Your task to perform on an android device: toggle location history Image 0: 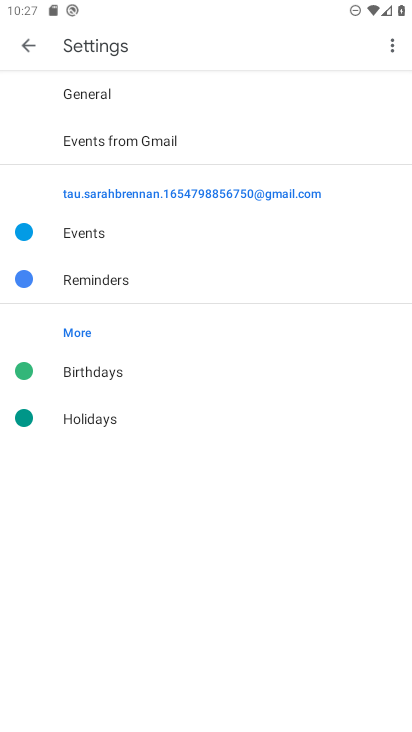
Step 0: press home button
Your task to perform on an android device: toggle location history Image 1: 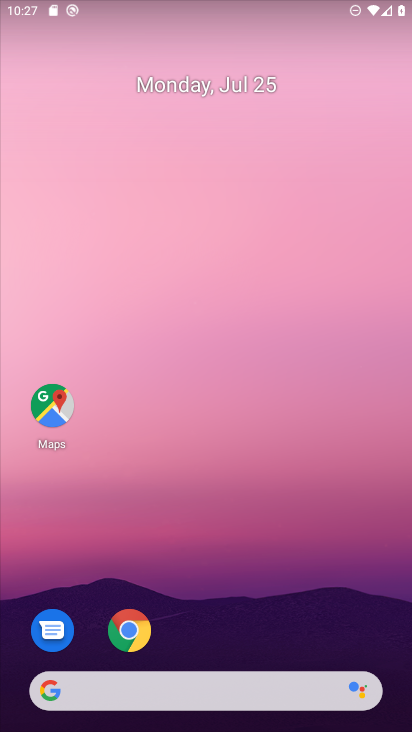
Step 1: drag from (322, 612) to (266, 34)
Your task to perform on an android device: toggle location history Image 2: 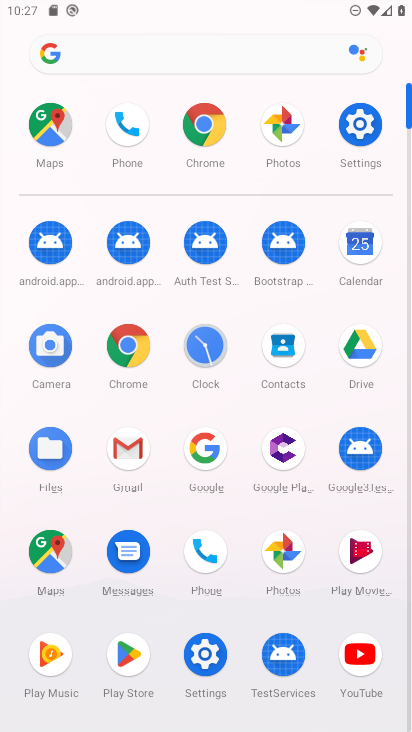
Step 2: click (357, 130)
Your task to perform on an android device: toggle location history Image 3: 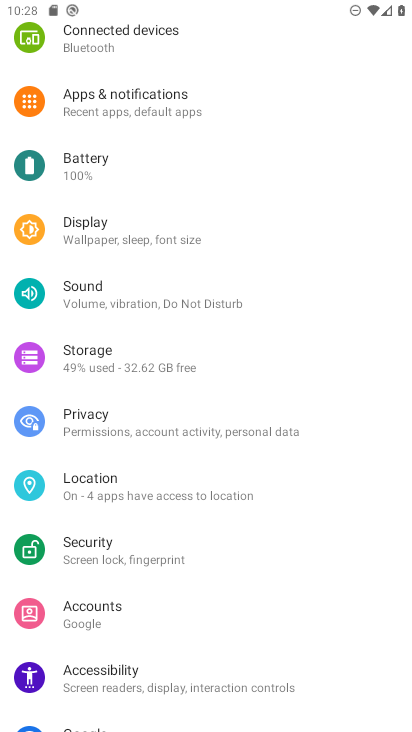
Step 3: click (78, 470)
Your task to perform on an android device: toggle location history Image 4: 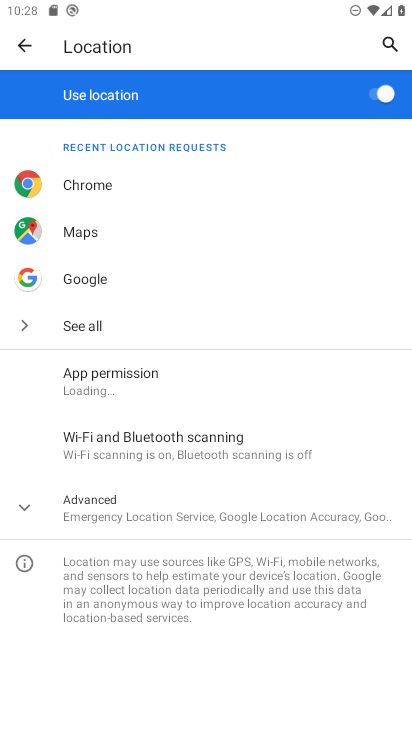
Step 4: click (144, 518)
Your task to perform on an android device: toggle location history Image 5: 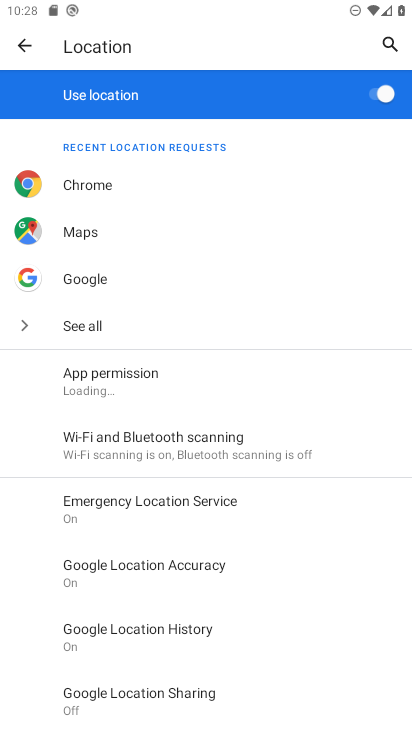
Step 5: click (204, 632)
Your task to perform on an android device: toggle location history Image 6: 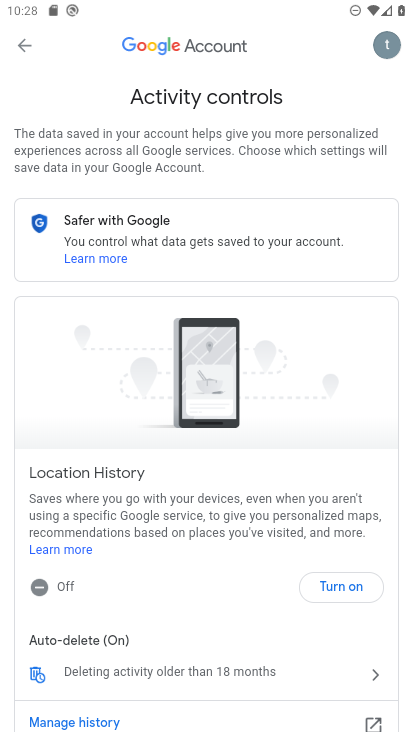
Step 6: click (359, 582)
Your task to perform on an android device: toggle location history Image 7: 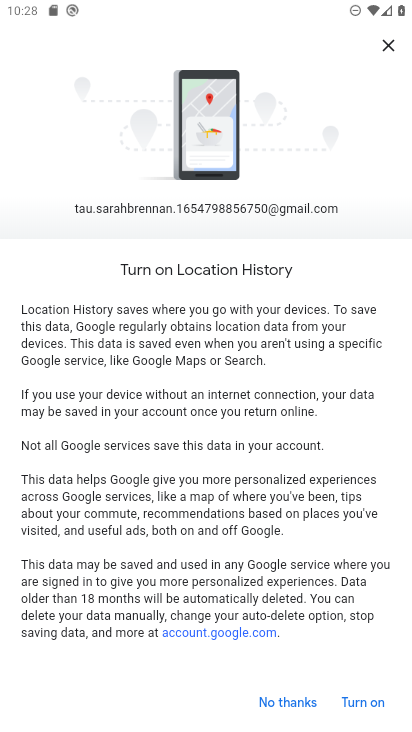
Step 7: click (361, 701)
Your task to perform on an android device: toggle location history Image 8: 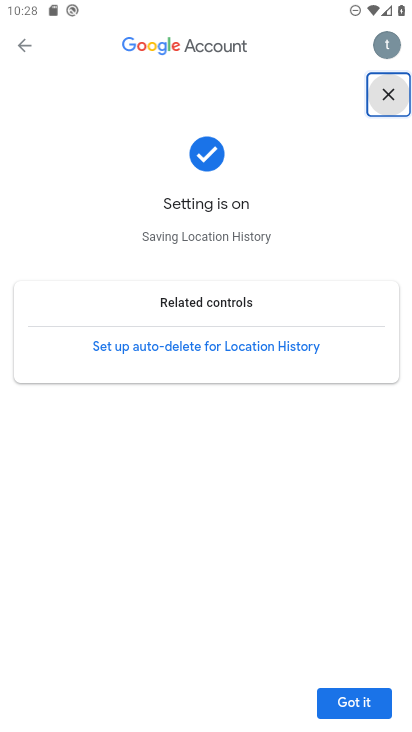
Step 8: task complete